Your task to perform on an android device: toggle pop-ups in chrome Image 0: 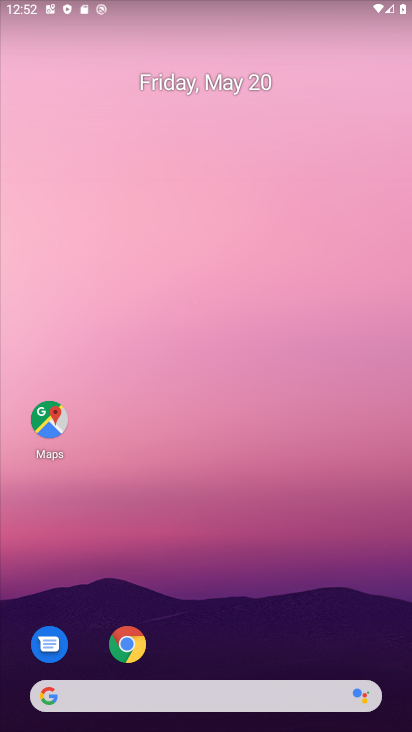
Step 0: drag from (248, 610) to (311, 26)
Your task to perform on an android device: toggle pop-ups in chrome Image 1: 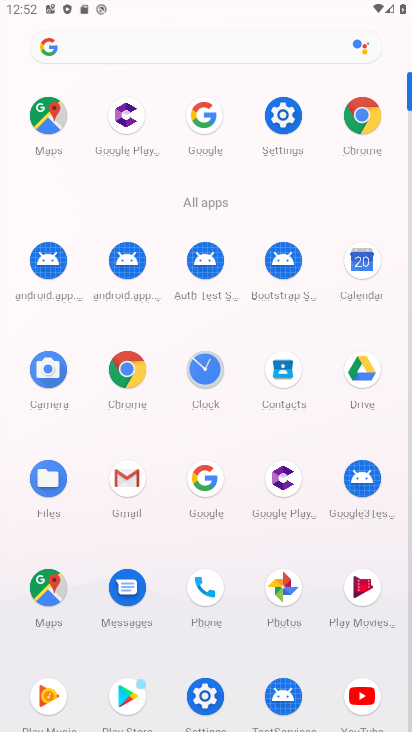
Step 1: click (366, 163)
Your task to perform on an android device: toggle pop-ups in chrome Image 2: 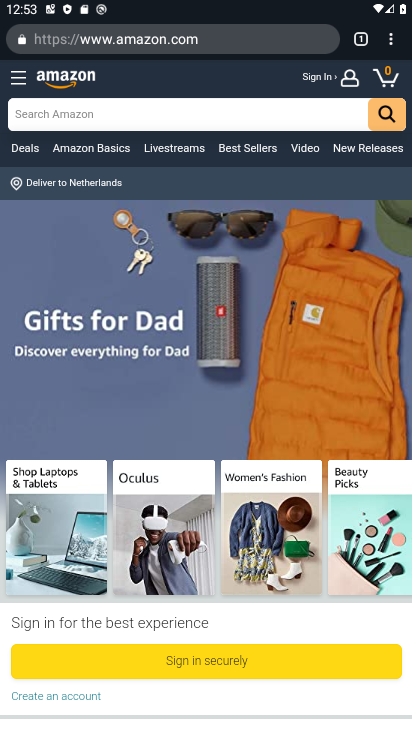
Step 2: drag from (393, 51) to (273, 435)
Your task to perform on an android device: toggle pop-ups in chrome Image 3: 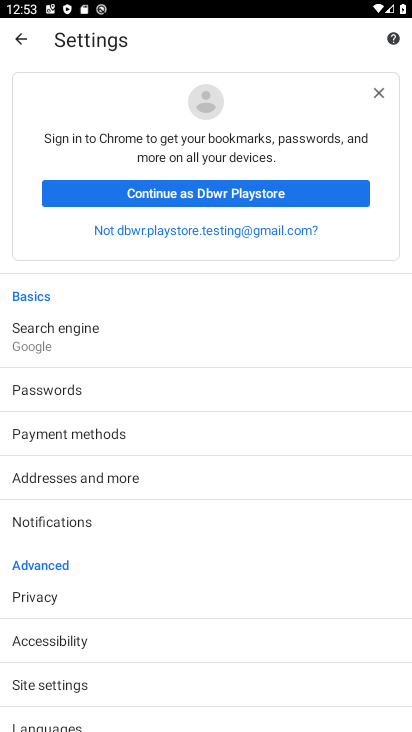
Step 3: drag from (119, 648) to (166, 282)
Your task to perform on an android device: toggle pop-ups in chrome Image 4: 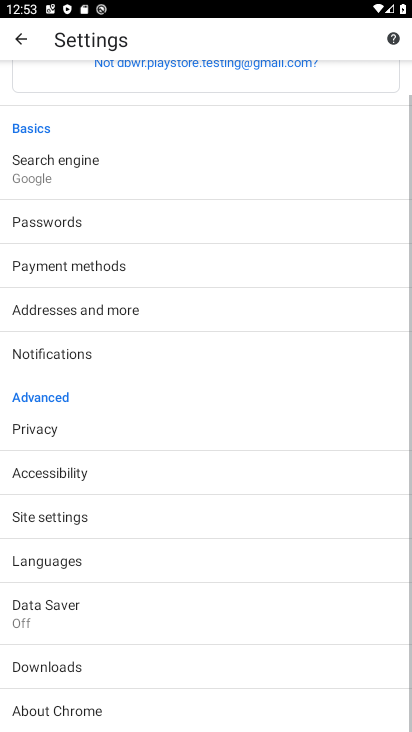
Step 4: click (48, 512)
Your task to perform on an android device: toggle pop-ups in chrome Image 5: 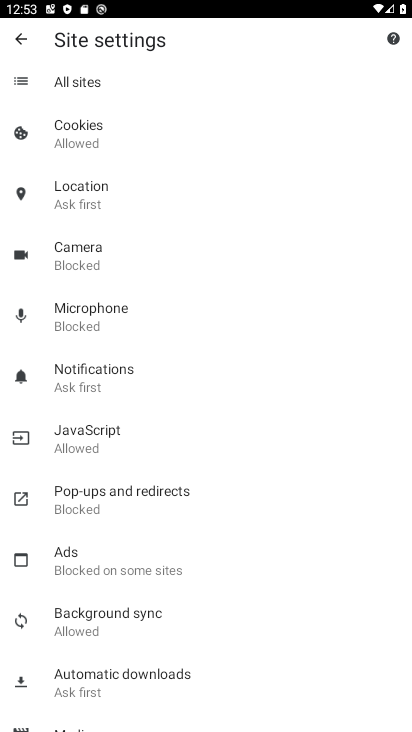
Step 5: click (122, 502)
Your task to perform on an android device: toggle pop-ups in chrome Image 6: 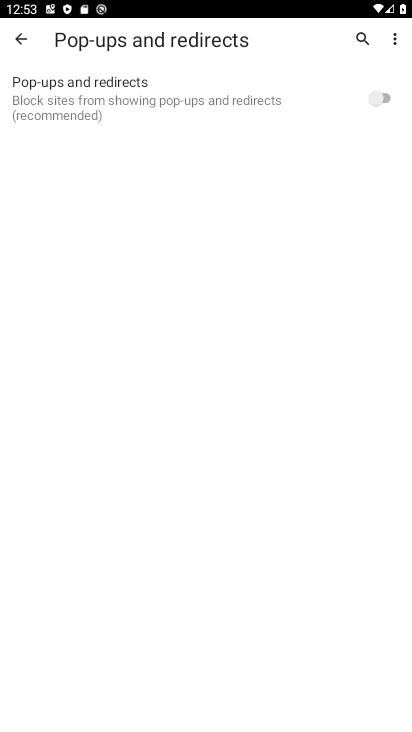
Step 6: click (383, 95)
Your task to perform on an android device: toggle pop-ups in chrome Image 7: 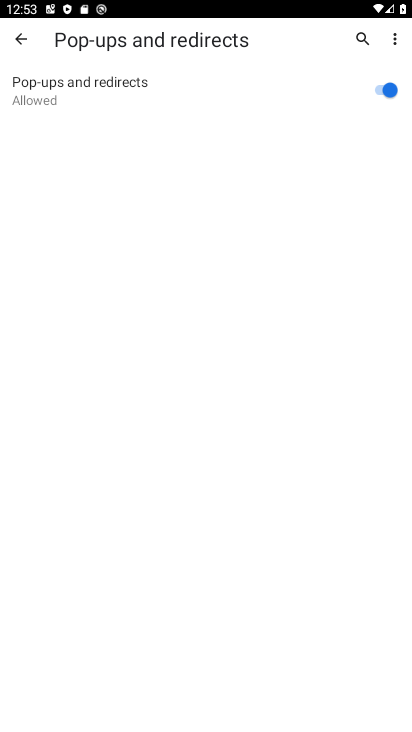
Step 7: task complete